Your task to perform on an android device: turn on the 24-hour format for clock Image 0: 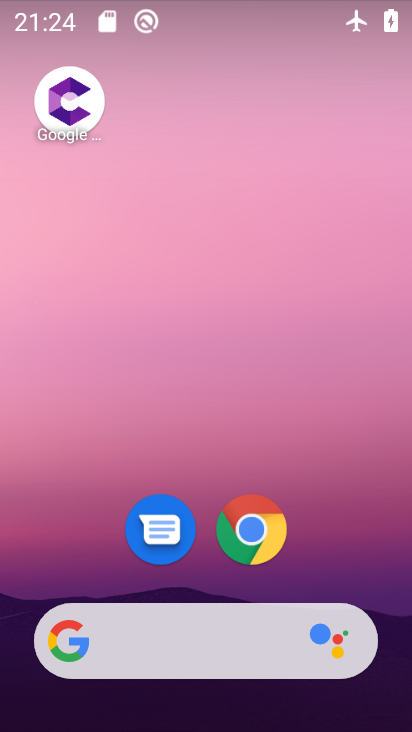
Step 0: drag from (84, 614) to (170, 70)
Your task to perform on an android device: turn on the 24-hour format for clock Image 1: 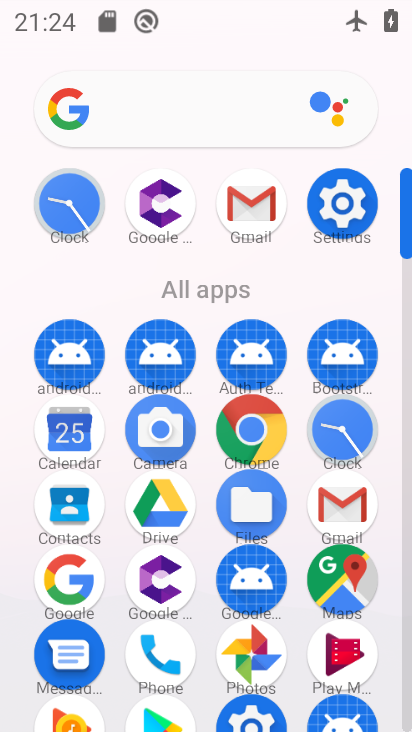
Step 1: click (331, 418)
Your task to perform on an android device: turn on the 24-hour format for clock Image 2: 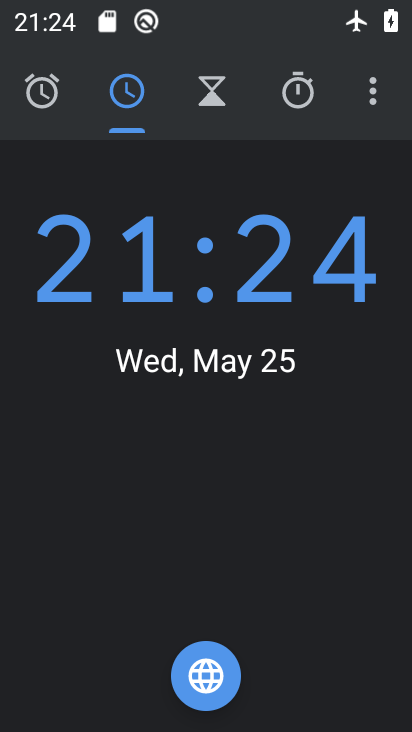
Step 2: click (374, 86)
Your task to perform on an android device: turn on the 24-hour format for clock Image 3: 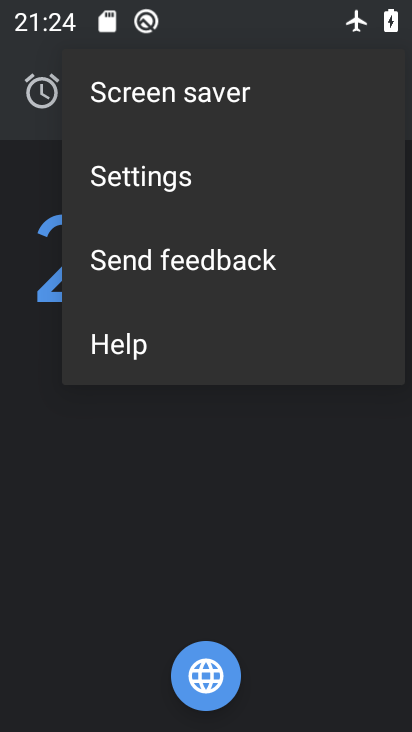
Step 3: click (310, 162)
Your task to perform on an android device: turn on the 24-hour format for clock Image 4: 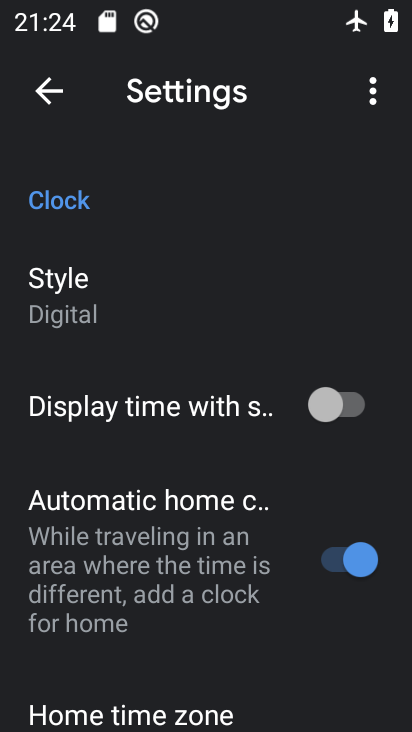
Step 4: drag from (146, 598) to (253, 166)
Your task to perform on an android device: turn on the 24-hour format for clock Image 5: 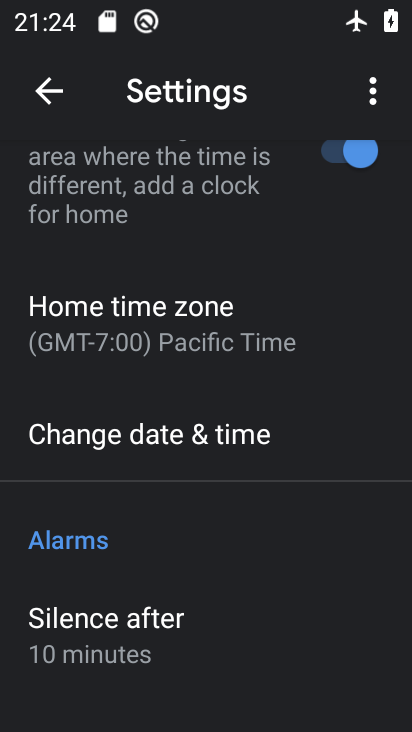
Step 5: click (218, 451)
Your task to perform on an android device: turn on the 24-hour format for clock Image 6: 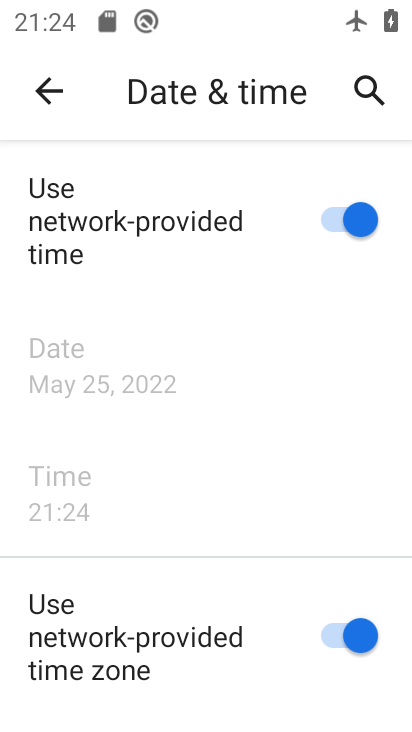
Step 6: task complete